Your task to perform on an android device: add a contact in the contacts app Image 0: 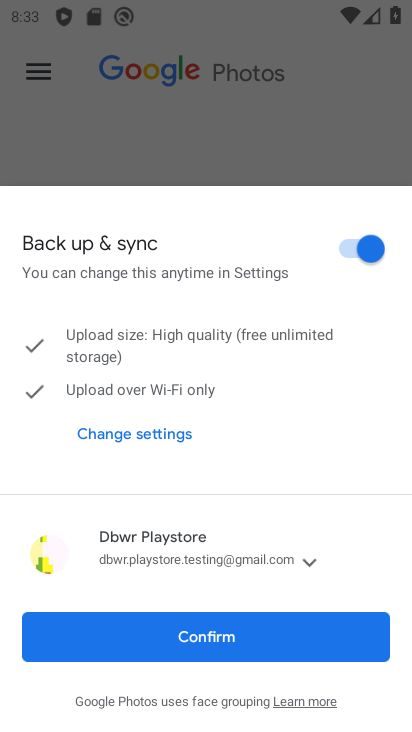
Step 0: click (304, 637)
Your task to perform on an android device: add a contact in the contacts app Image 1: 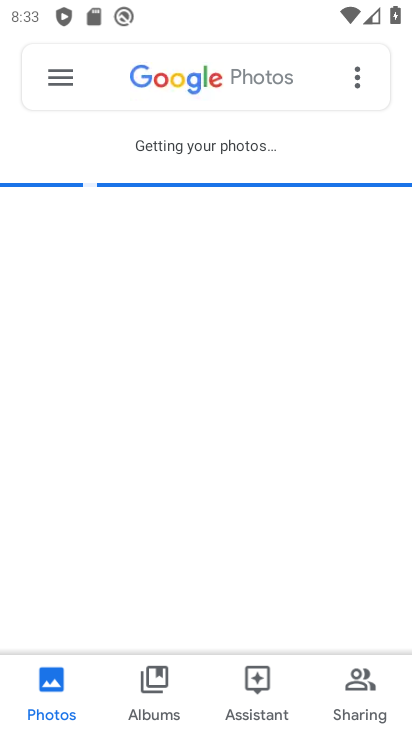
Step 1: press home button
Your task to perform on an android device: add a contact in the contacts app Image 2: 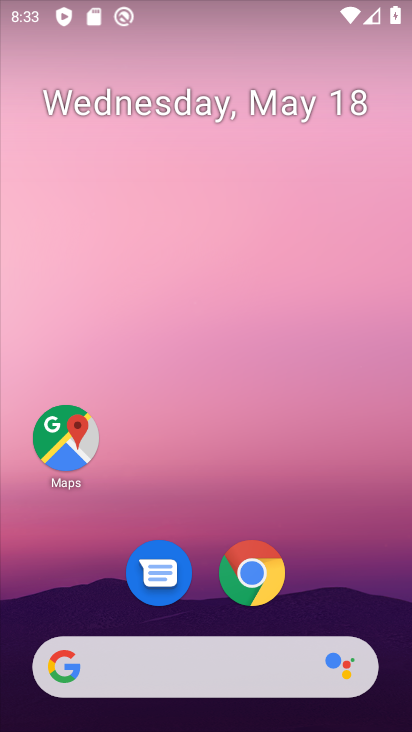
Step 2: drag from (214, 722) to (58, 43)
Your task to perform on an android device: add a contact in the contacts app Image 3: 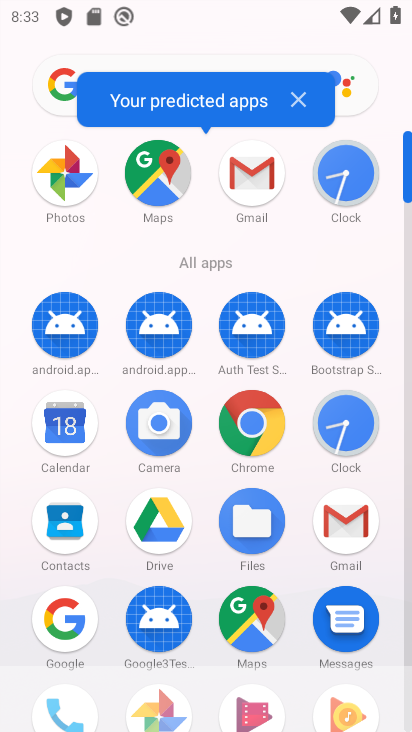
Step 3: click (73, 528)
Your task to perform on an android device: add a contact in the contacts app Image 4: 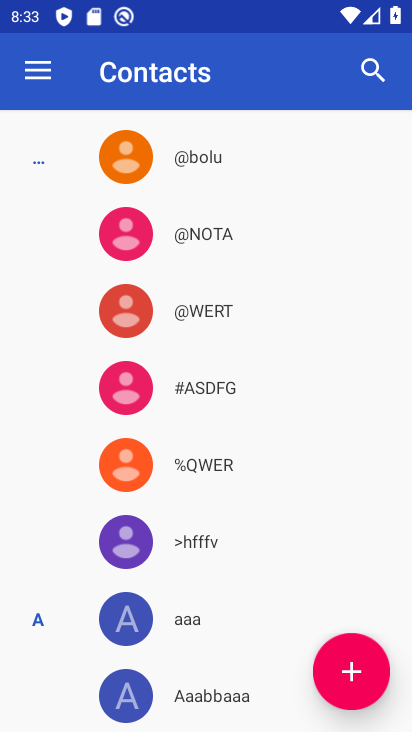
Step 4: click (354, 674)
Your task to perform on an android device: add a contact in the contacts app Image 5: 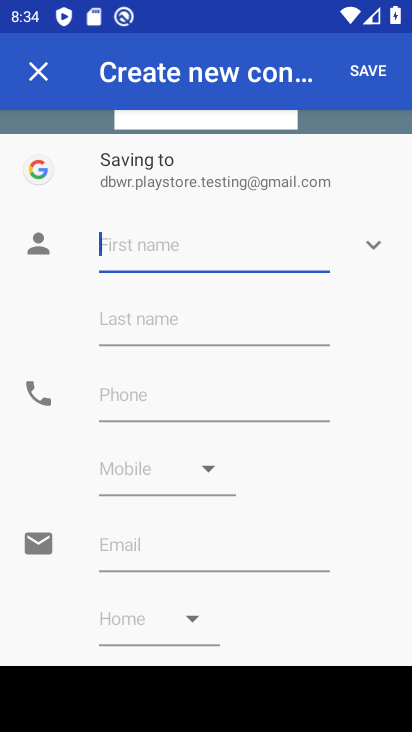
Step 5: type "gfngcn"
Your task to perform on an android device: add a contact in the contacts app Image 6: 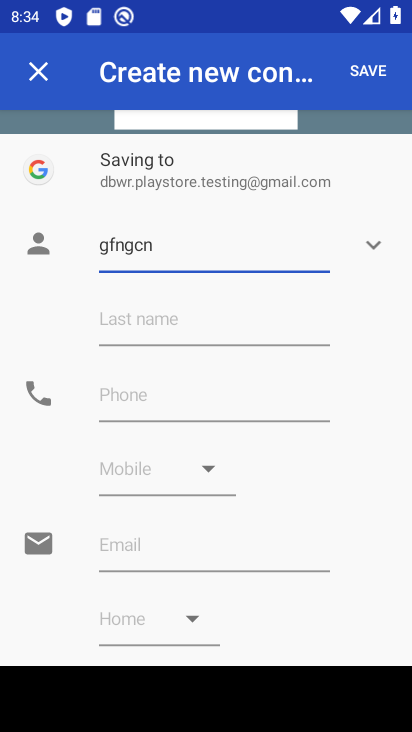
Step 6: click (207, 411)
Your task to perform on an android device: add a contact in the contacts app Image 7: 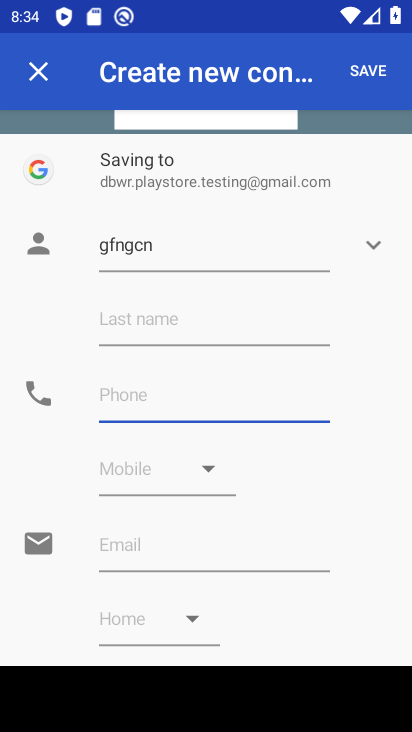
Step 7: click (225, 392)
Your task to perform on an android device: add a contact in the contacts app Image 8: 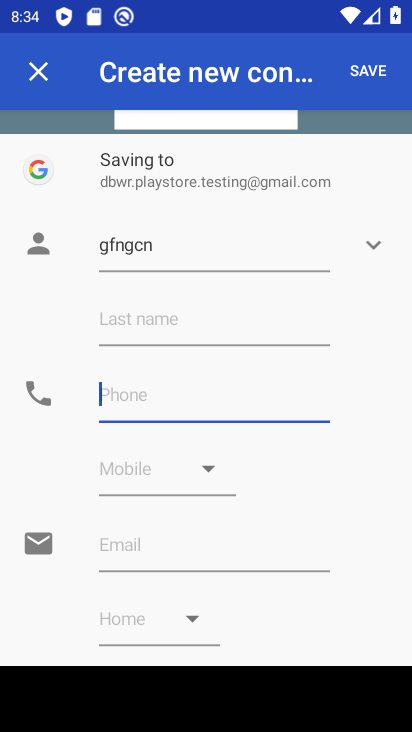
Step 8: type "454"
Your task to perform on an android device: add a contact in the contacts app Image 9: 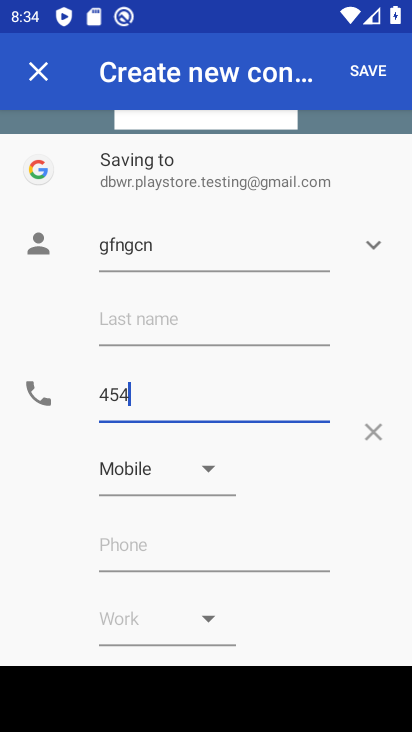
Step 9: click (388, 65)
Your task to perform on an android device: add a contact in the contacts app Image 10: 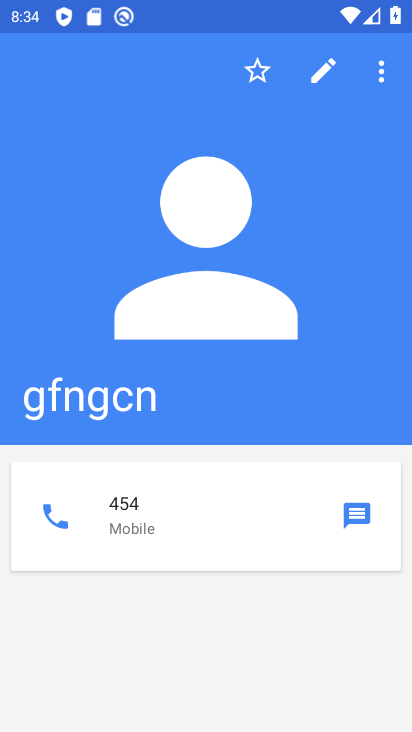
Step 10: task complete